Your task to perform on an android device: turn on showing notifications on the lock screen Image 0: 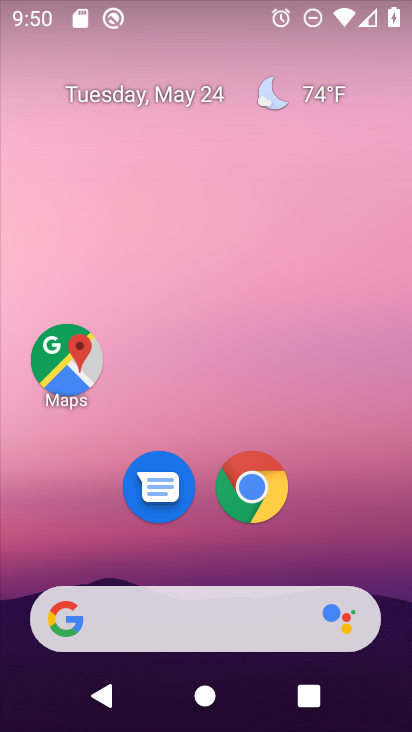
Step 0: drag from (381, 585) to (370, 155)
Your task to perform on an android device: turn on showing notifications on the lock screen Image 1: 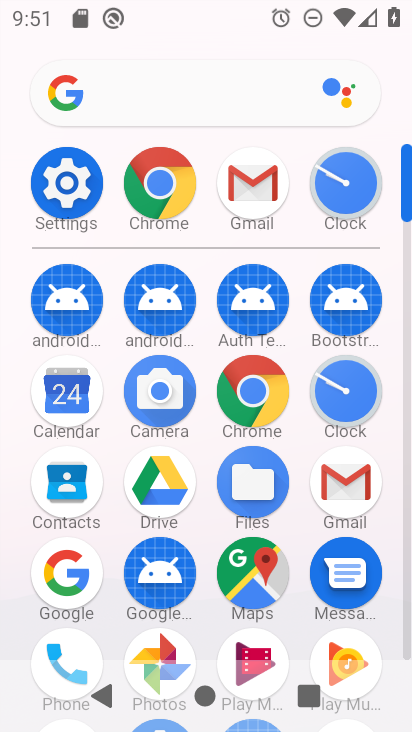
Step 1: click (64, 182)
Your task to perform on an android device: turn on showing notifications on the lock screen Image 2: 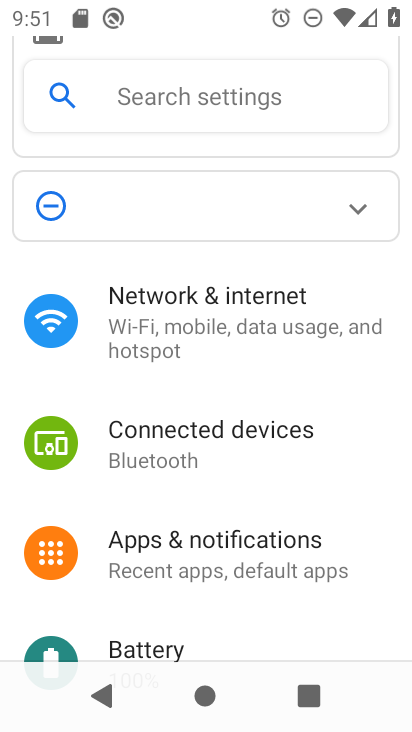
Step 2: click (190, 571)
Your task to perform on an android device: turn on showing notifications on the lock screen Image 3: 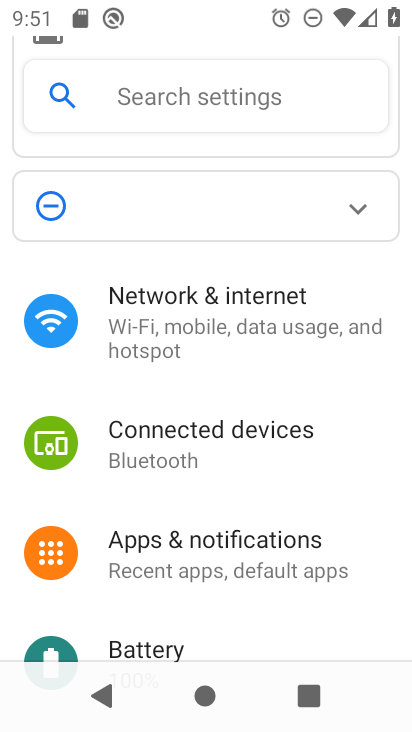
Step 3: click (231, 556)
Your task to perform on an android device: turn on showing notifications on the lock screen Image 4: 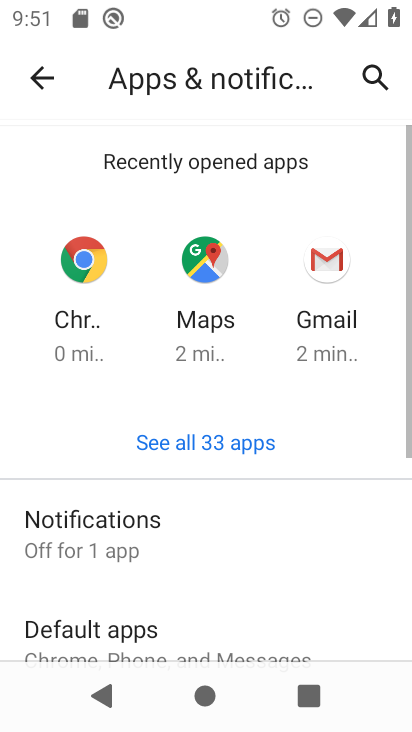
Step 4: click (89, 531)
Your task to perform on an android device: turn on showing notifications on the lock screen Image 5: 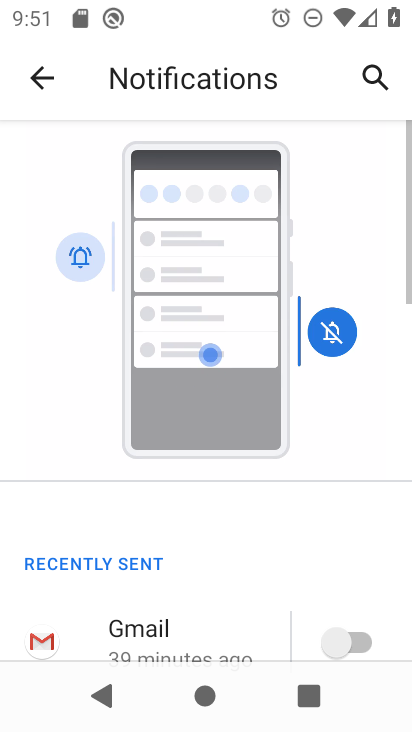
Step 5: drag from (184, 583) to (168, 203)
Your task to perform on an android device: turn on showing notifications on the lock screen Image 6: 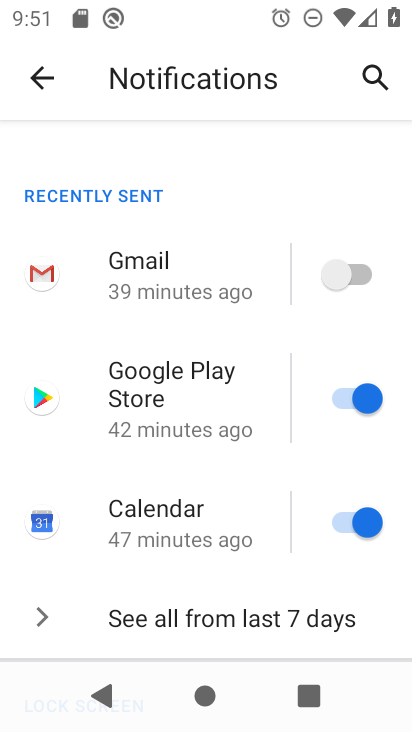
Step 6: drag from (211, 525) to (190, 205)
Your task to perform on an android device: turn on showing notifications on the lock screen Image 7: 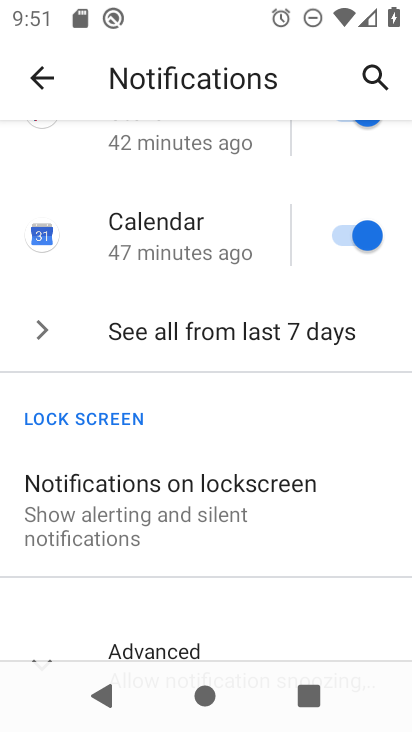
Step 7: click (171, 504)
Your task to perform on an android device: turn on showing notifications on the lock screen Image 8: 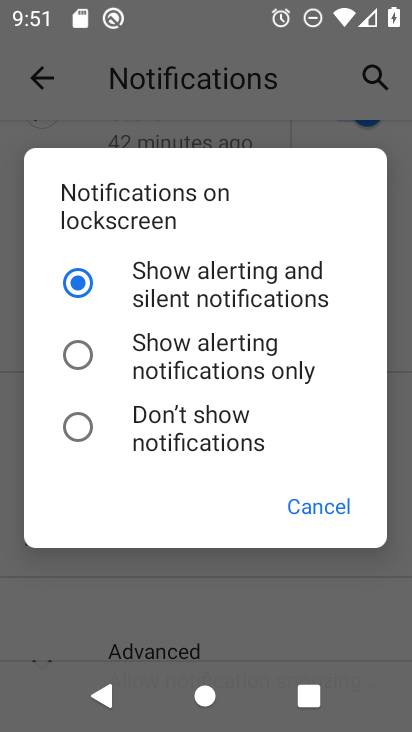
Step 8: task complete